Your task to perform on an android device: turn off smart reply in the gmail app Image 0: 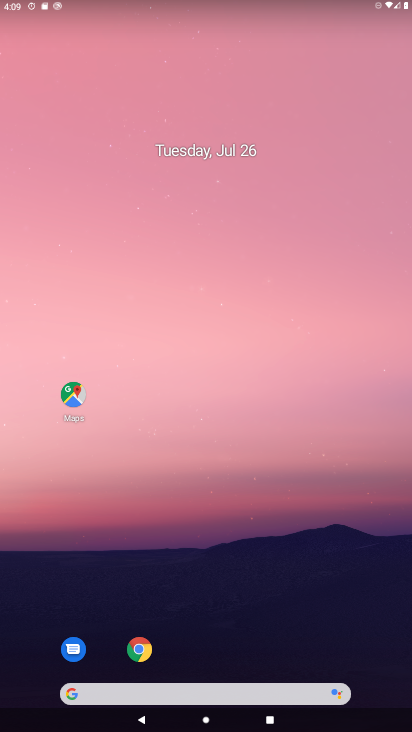
Step 0: drag from (300, 639) to (197, 86)
Your task to perform on an android device: turn off smart reply in the gmail app Image 1: 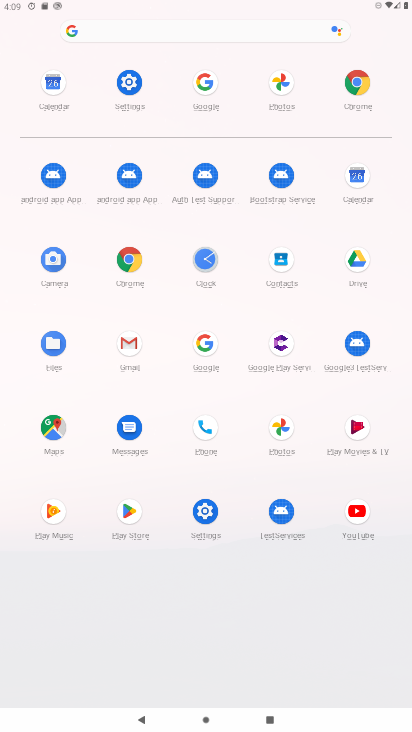
Step 1: click (132, 347)
Your task to perform on an android device: turn off smart reply in the gmail app Image 2: 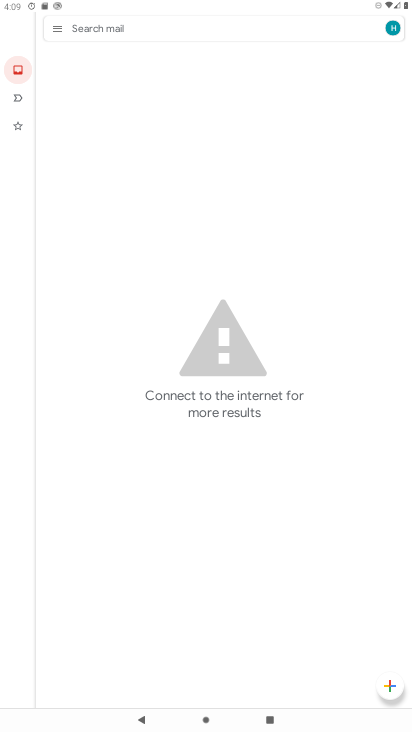
Step 2: click (56, 34)
Your task to perform on an android device: turn off smart reply in the gmail app Image 3: 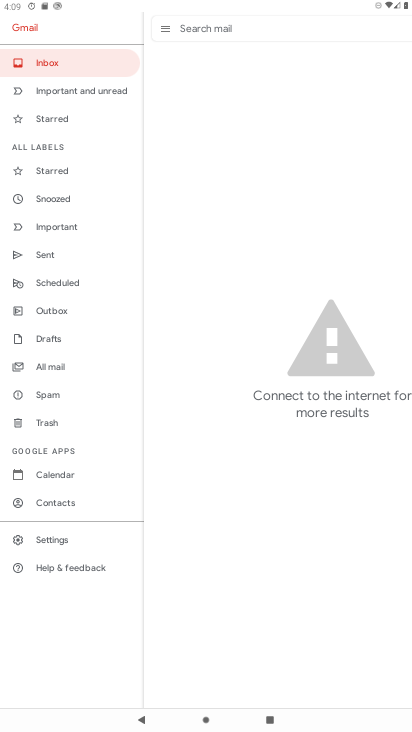
Step 3: click (59, 544)
Your task to perform on an android device: turn off smart reply in the gmail app Image 4: 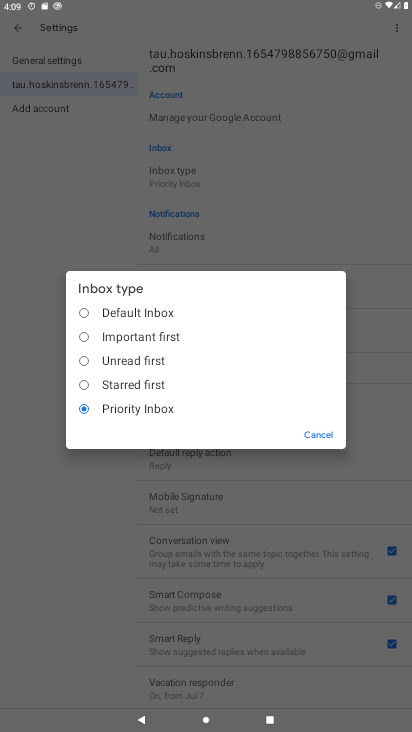
Step 4: click (323, 436)
Your task to perform on an android device: turn off smart reply in the gmail app Image 5: 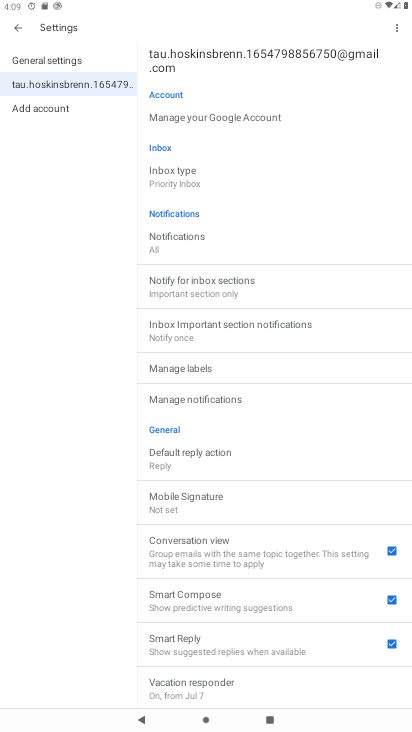
Step 5: drag from (229, 648) to (234, 286)
Your task to perform on an android device: turn off smart reply in the gmail app Image 6: 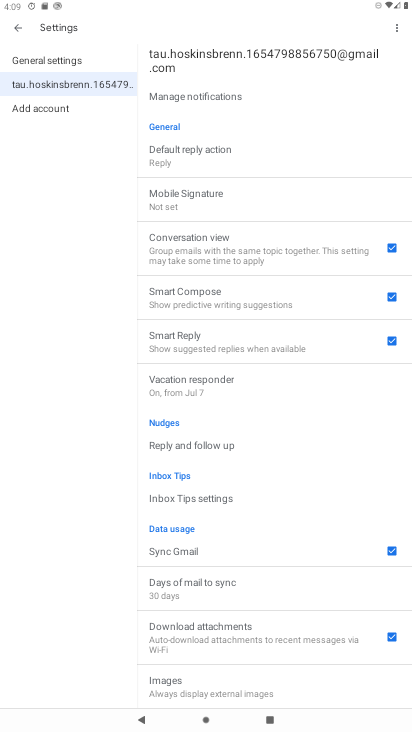
Step 6: click (200, 342)
Your task to perform on an android device: turn off smart reply in the gmail app Image 7: 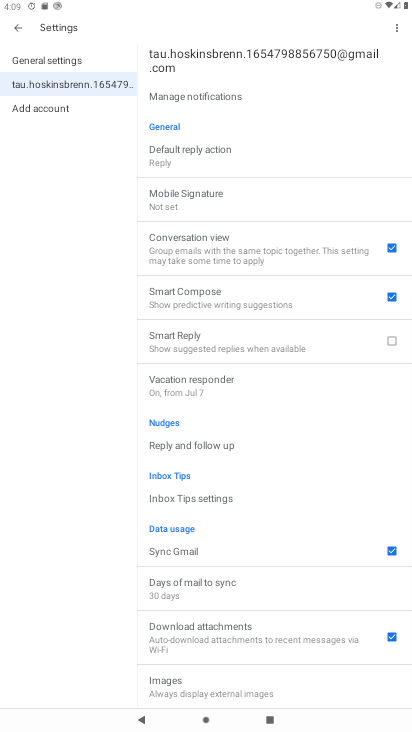
Step 7: task complete